Your task to perform on an android device: turn on notifications settings in the gmail app Image 0: 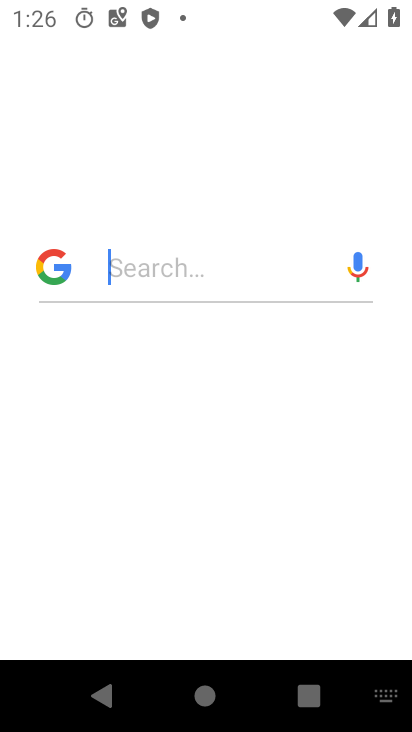
Step 0: press home button
Your task to perform on an android device: turn on notifications settings in the gmail app Image 1: 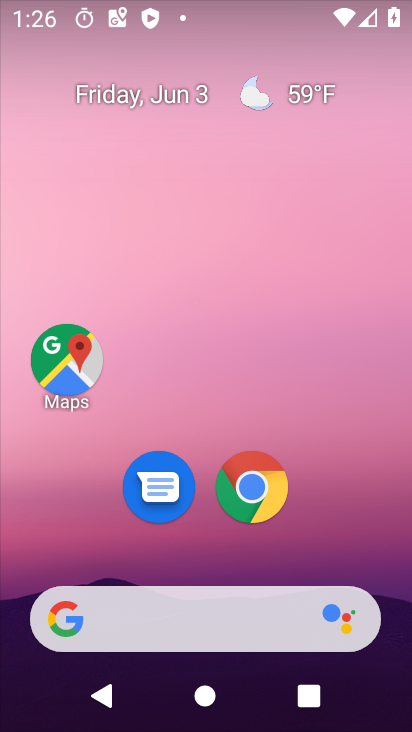
Step 1: drag from (204, 566) to (261, 93)
Your task to perform on an android device: turn on notifications settings in the gmail app Image 2: 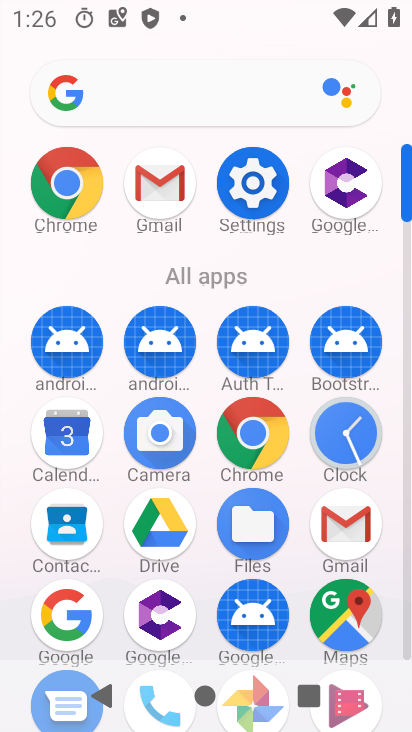
Step 2: click (159, 175)
Your task to perform on an android device: turn on notifications settings in the gmail app Image 3: 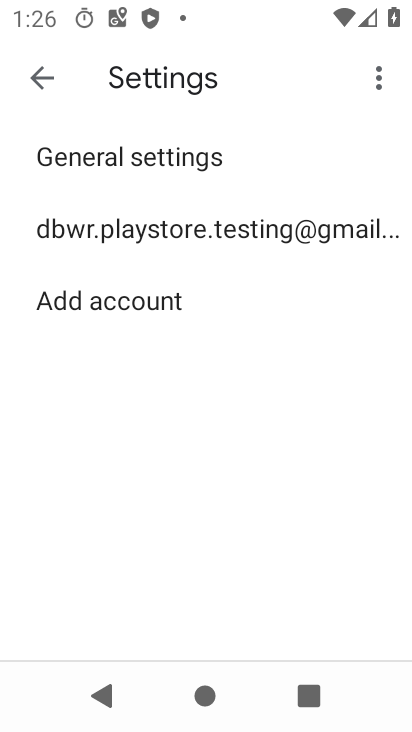
Step 3: click (153, 162)
Your task to perform on an android device: turn on notifications settings in the gmail app Image 4: 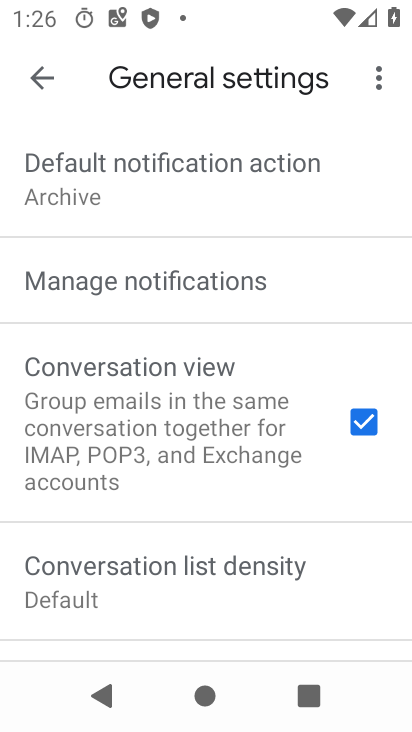
Step 4: click (263, 288)
Your task to perform on an android device: turn on notifications settings in the gmail app Image 5: 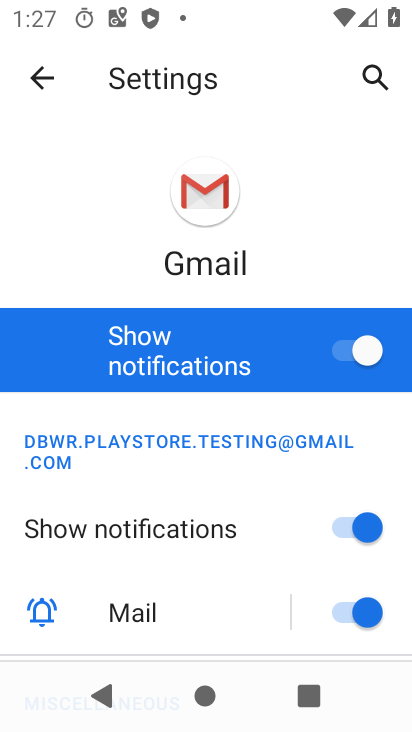
Step 5: task complete